Your task to perform on an android device: Open Google Chrome Image 0: 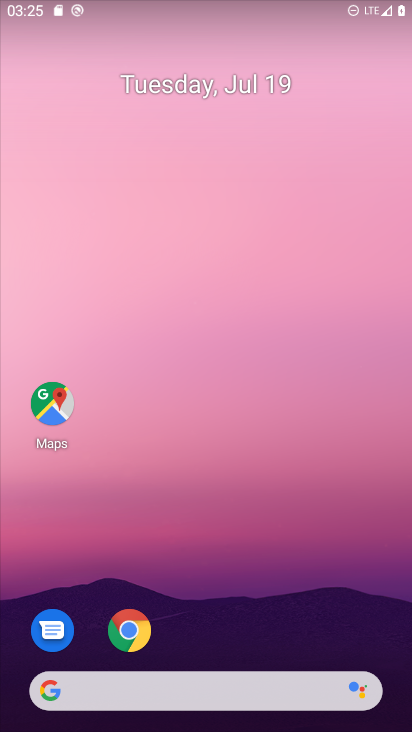
Step 0: click (130, 636)
Your task to perform on an android device: Open Google Chrome Image 1: 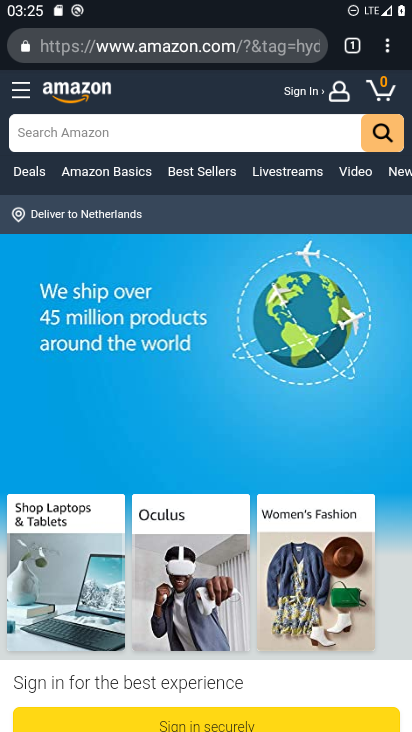
Step 1: task complete